Your task to perform on an android device: Search for "logitech g910" on ebay, select the first entry, and add it to the cart. Image 0: 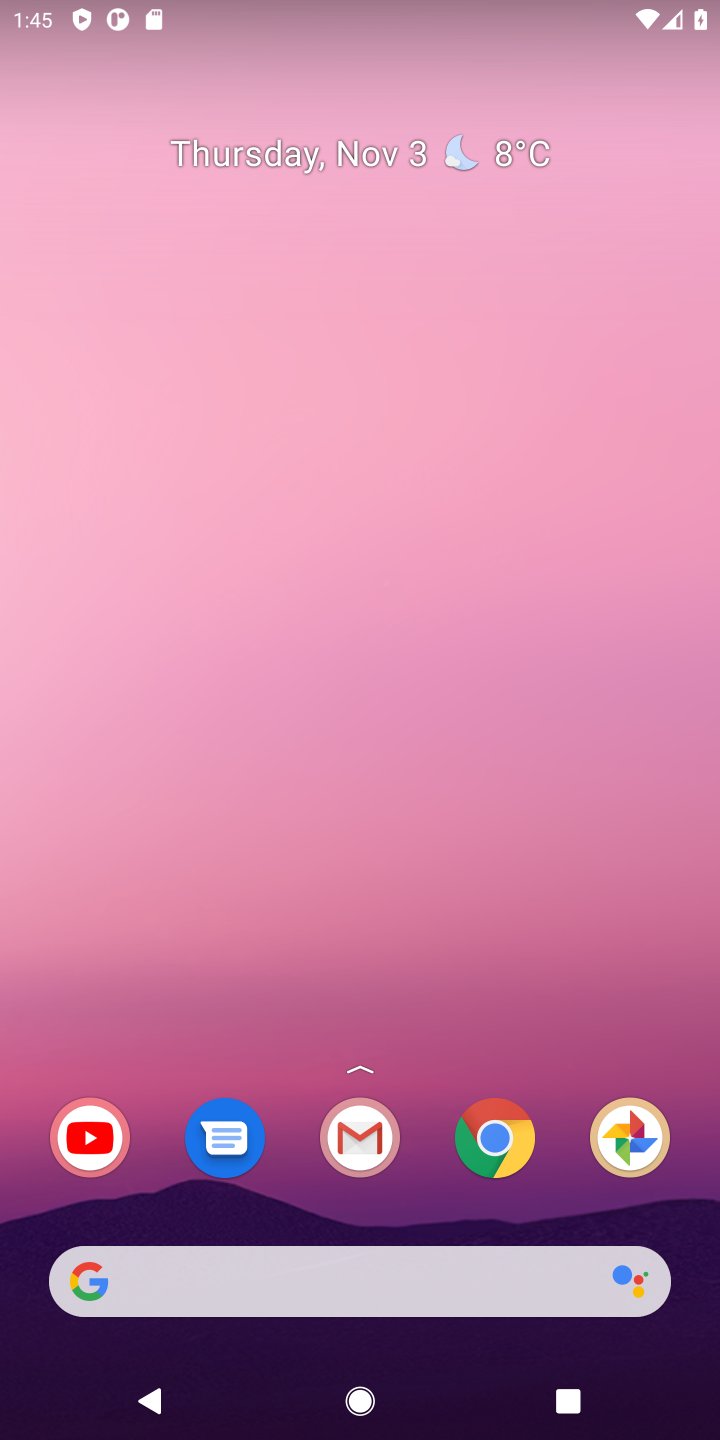
Step 0: click (495, 1130)
Your task to perform on an android device: Search for "logitech g910" on ebay, select the first entry, and add it to the cart. Image 1: 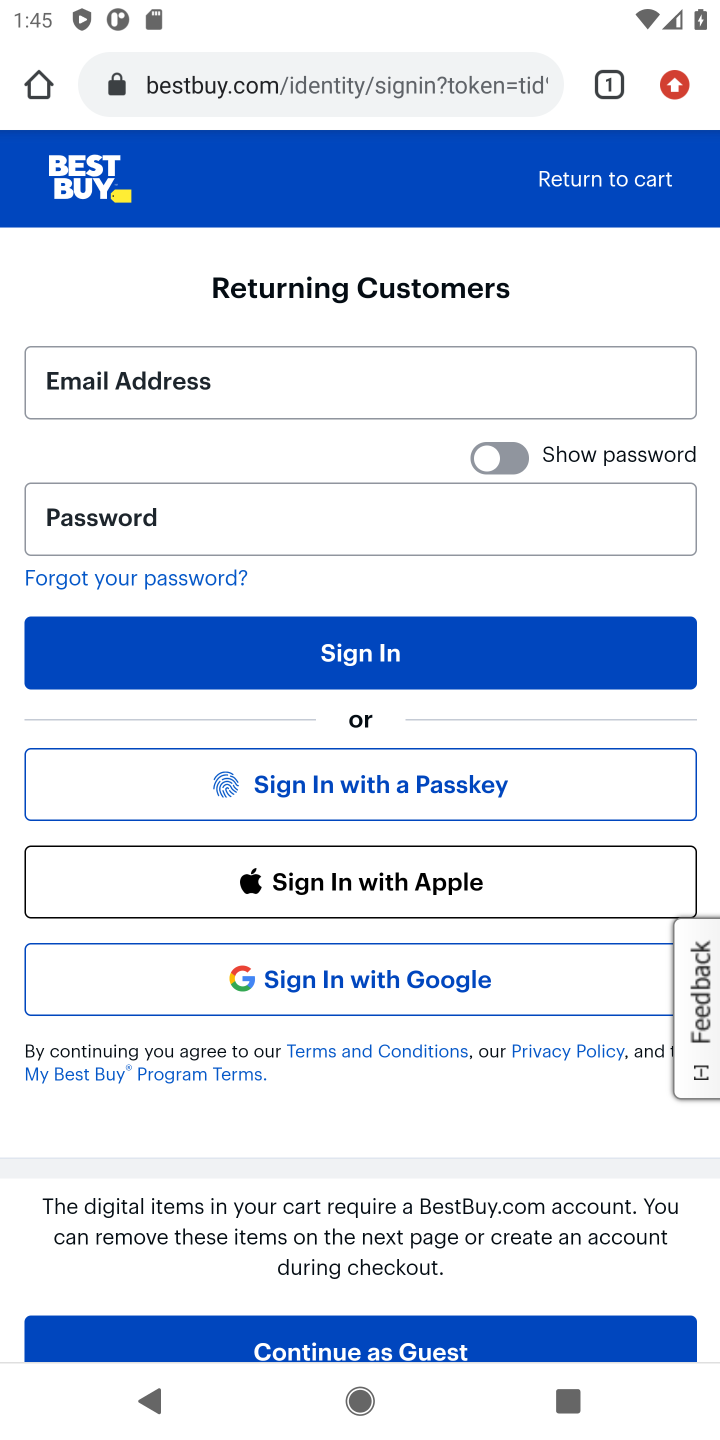
Step 1: click (376, 89)
Your task to perform on an android device: Search for "logitech g910" on ebay, select the first entry, and add it to the cart. Image 2: 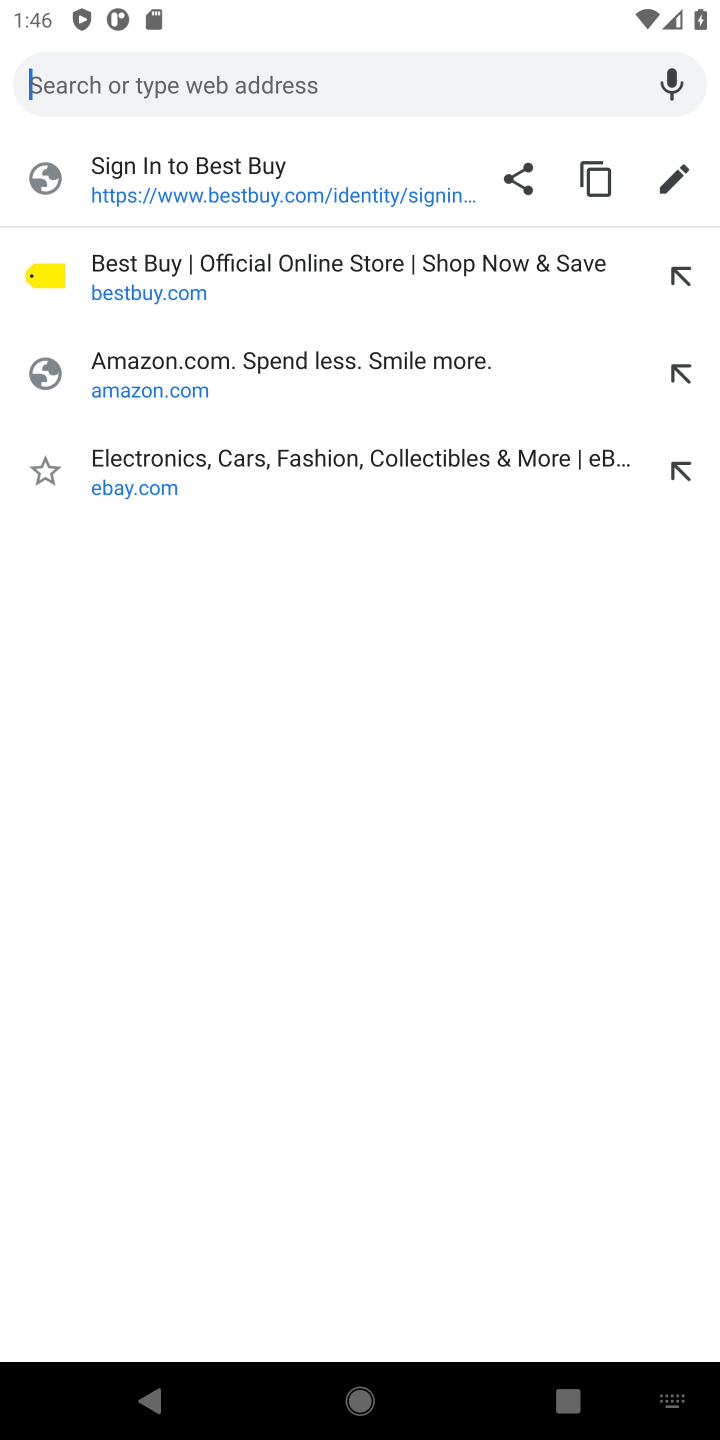
Step 2: type "ebay"
Your task to perform on an android device: Search for "logitech g910" on ebay, select the first entry, and add it to the cart. Image 3: 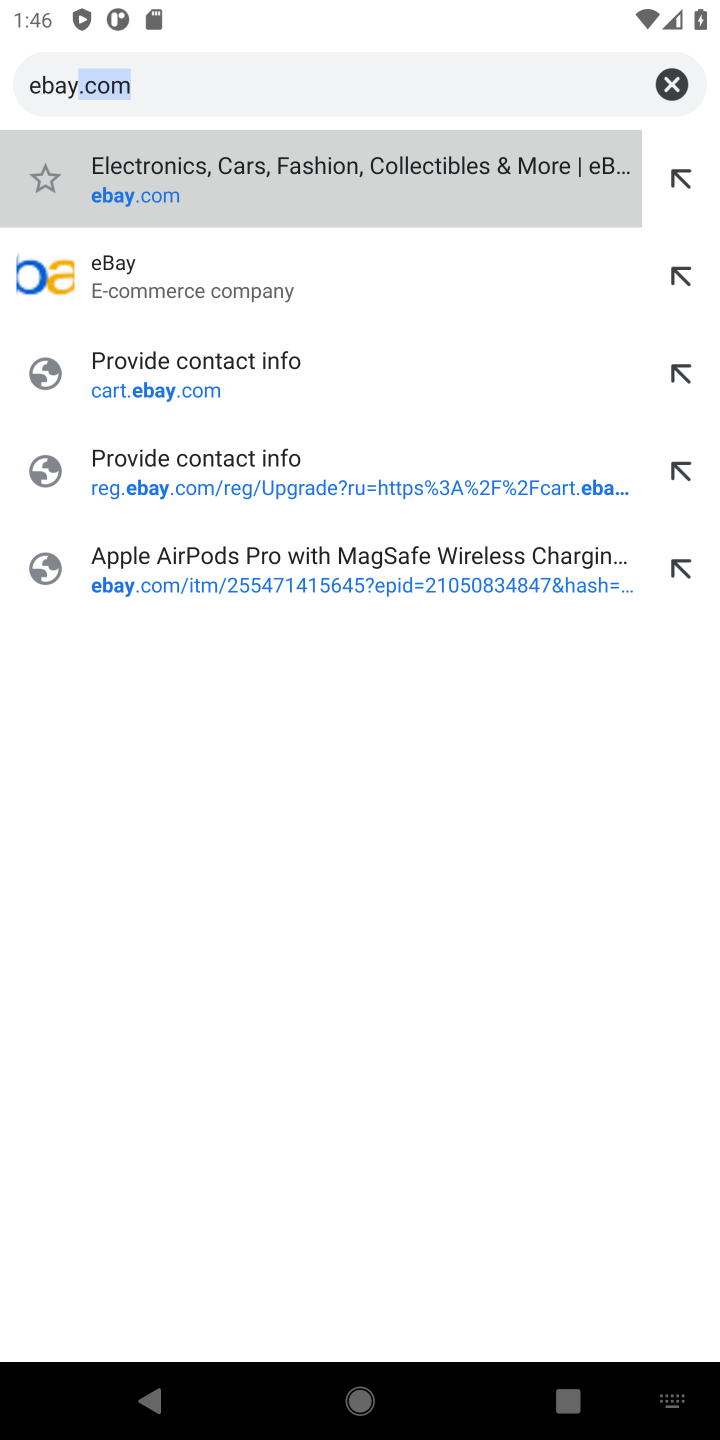
Step 3: click (42, 286)
Your task to perform on an android device: Search for "logitech g910" on ebay, select the first entry, and add it to the cart. Image 4: 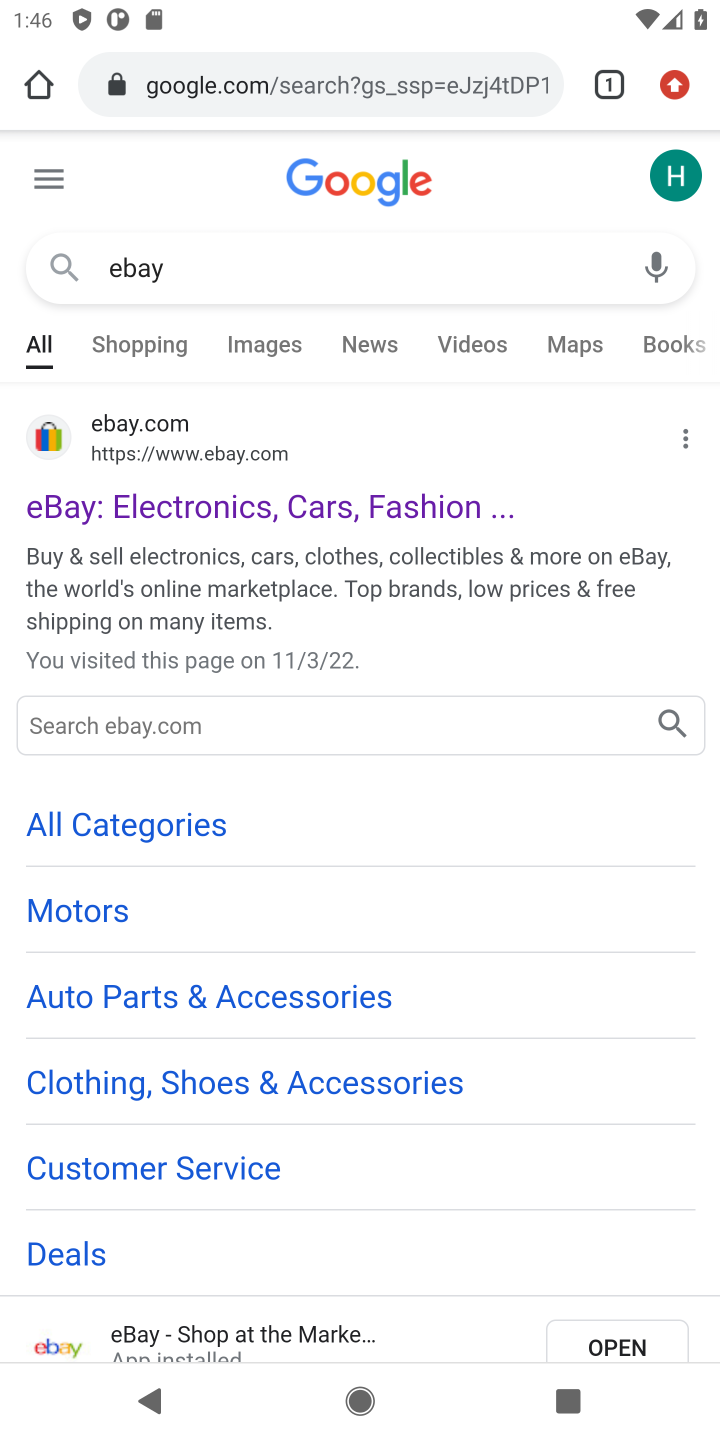
Step 4: click (71, 501)
Your task to perform on an android device: Search for "logitech g910" on ebay, select the first entry, and add it to the cart. Image 5: 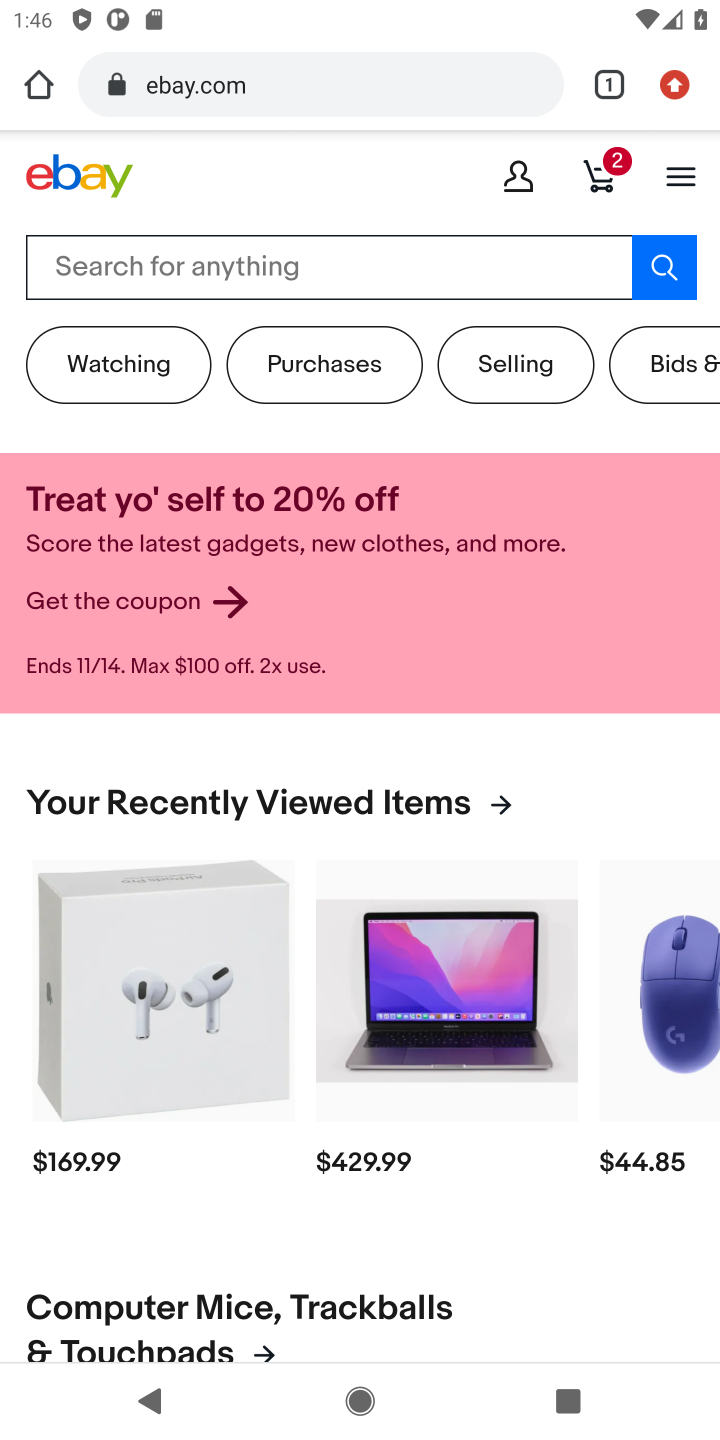
Step 5: click (259, 255)
Your task to perform on an android device: Search for "logitech g910" on ebay, select the first entry, and add it to the cart. Image 6: 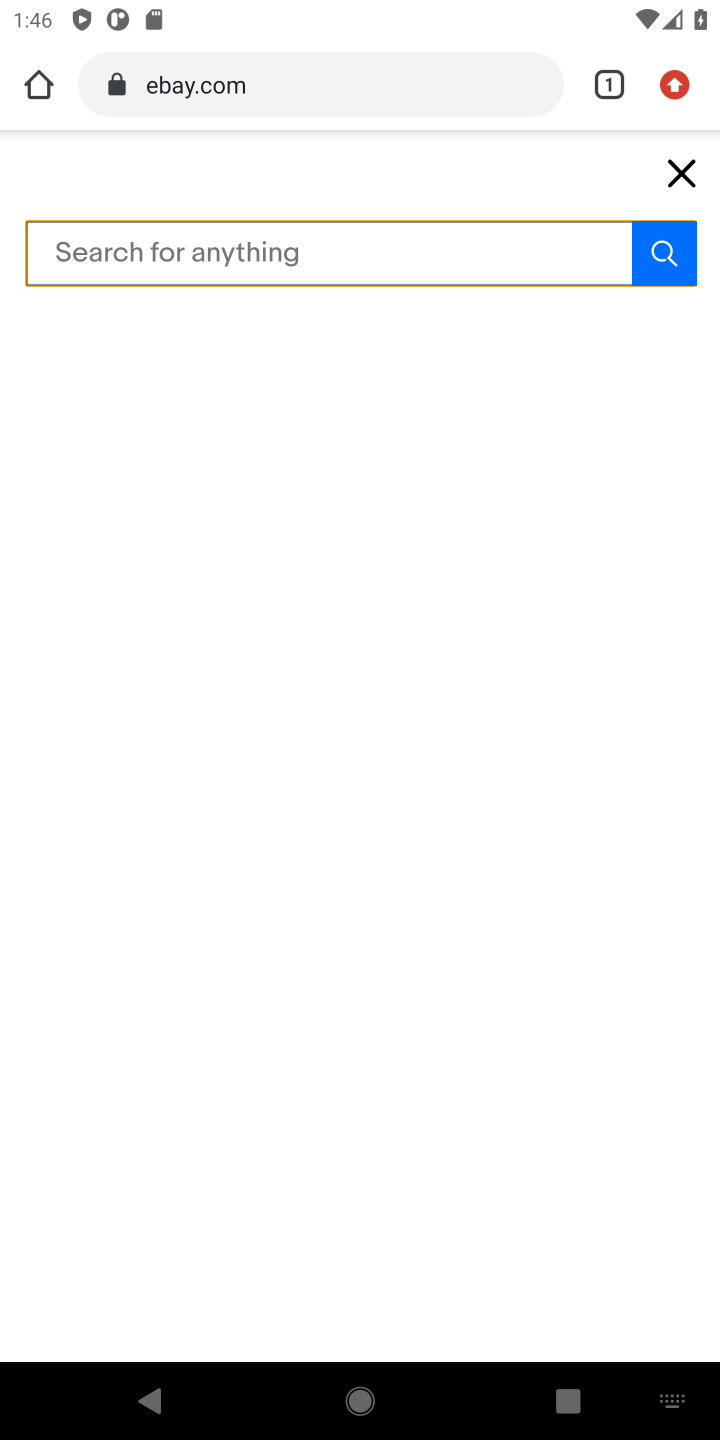
Step 6: type "logitech g910"
Your task to perform on an android device: Search for "logitech g910" on ebay, select the first entry, and add it to the cart. Image 7: 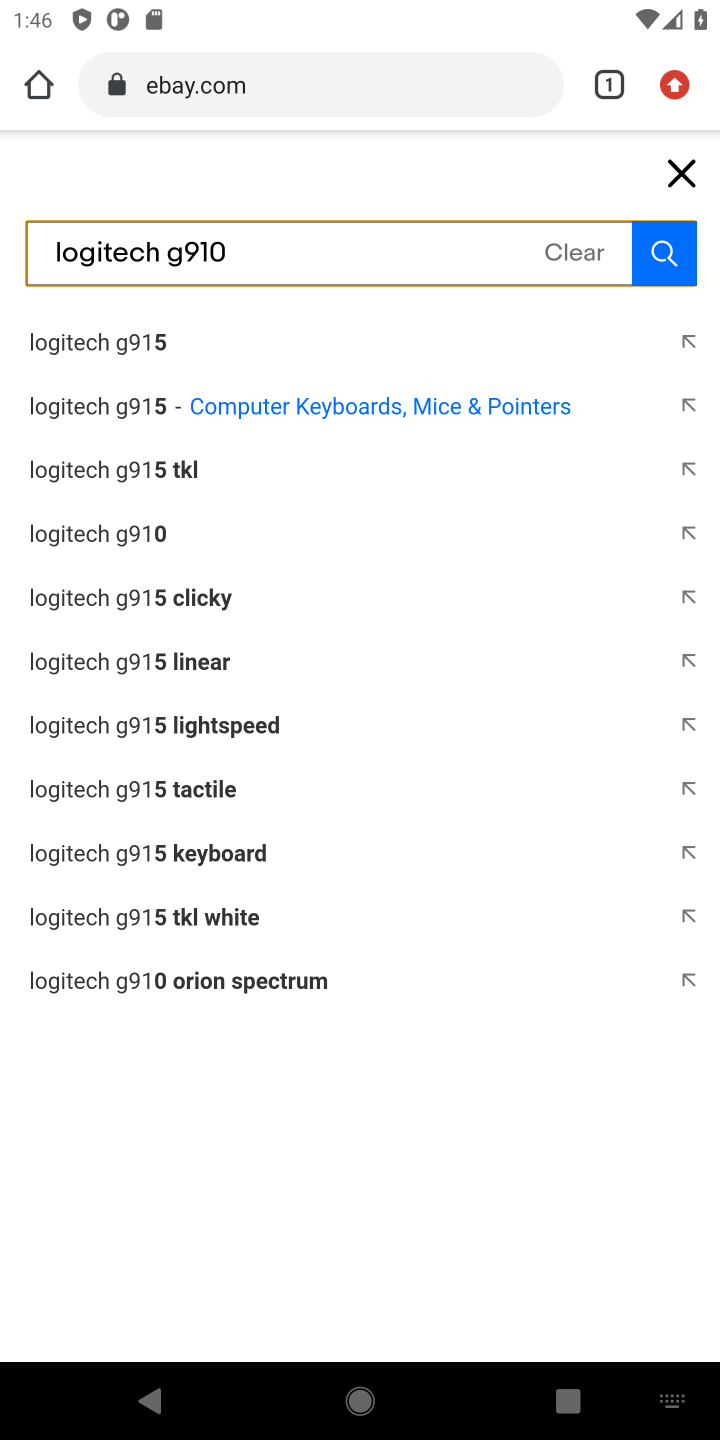
Step 7: click (675, 239)
Your task to perform on an android device: Search for "logitech g910" on ebay, select the first entry, and add it to the cart. Image 8: 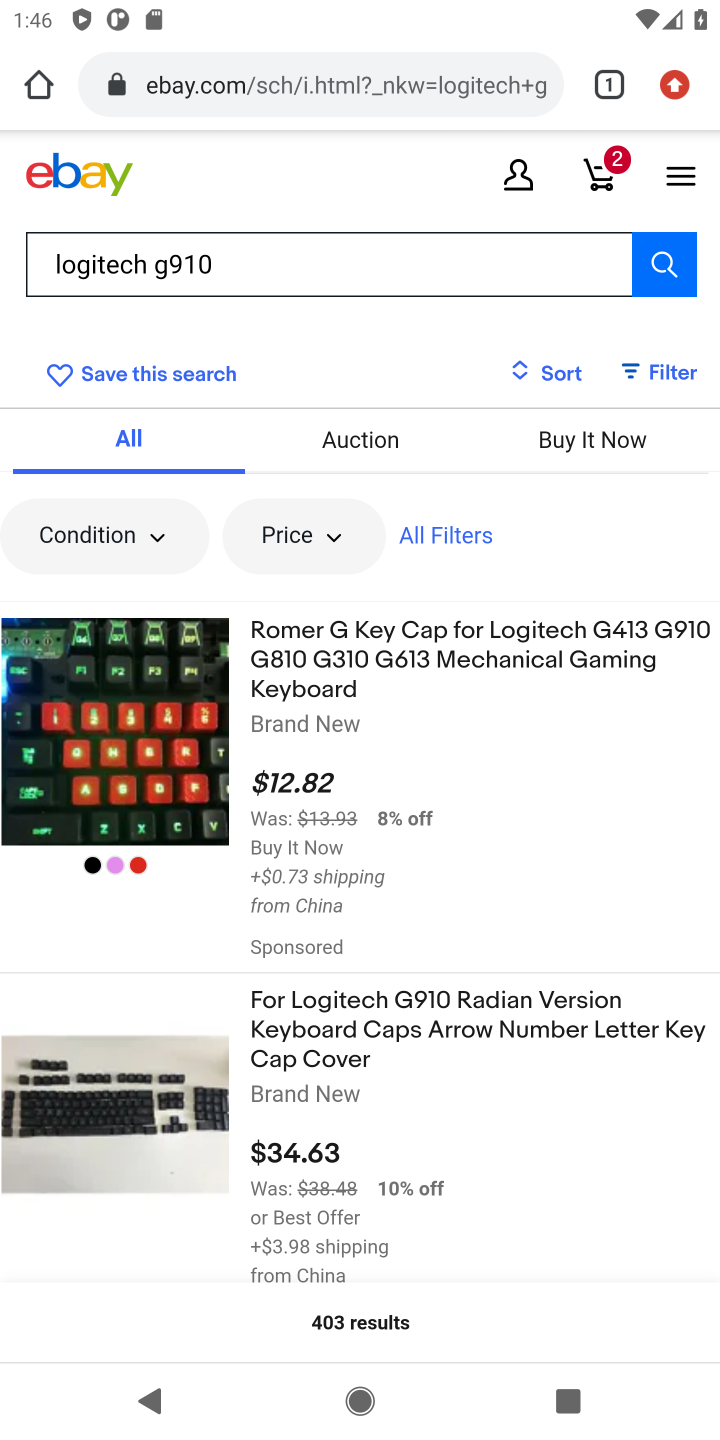
Step 8: click (436, 1047)
Your task to perform on an android device: Search for "logitech g910" on ebay, select the first entry, and add it to the cart. Image 9: 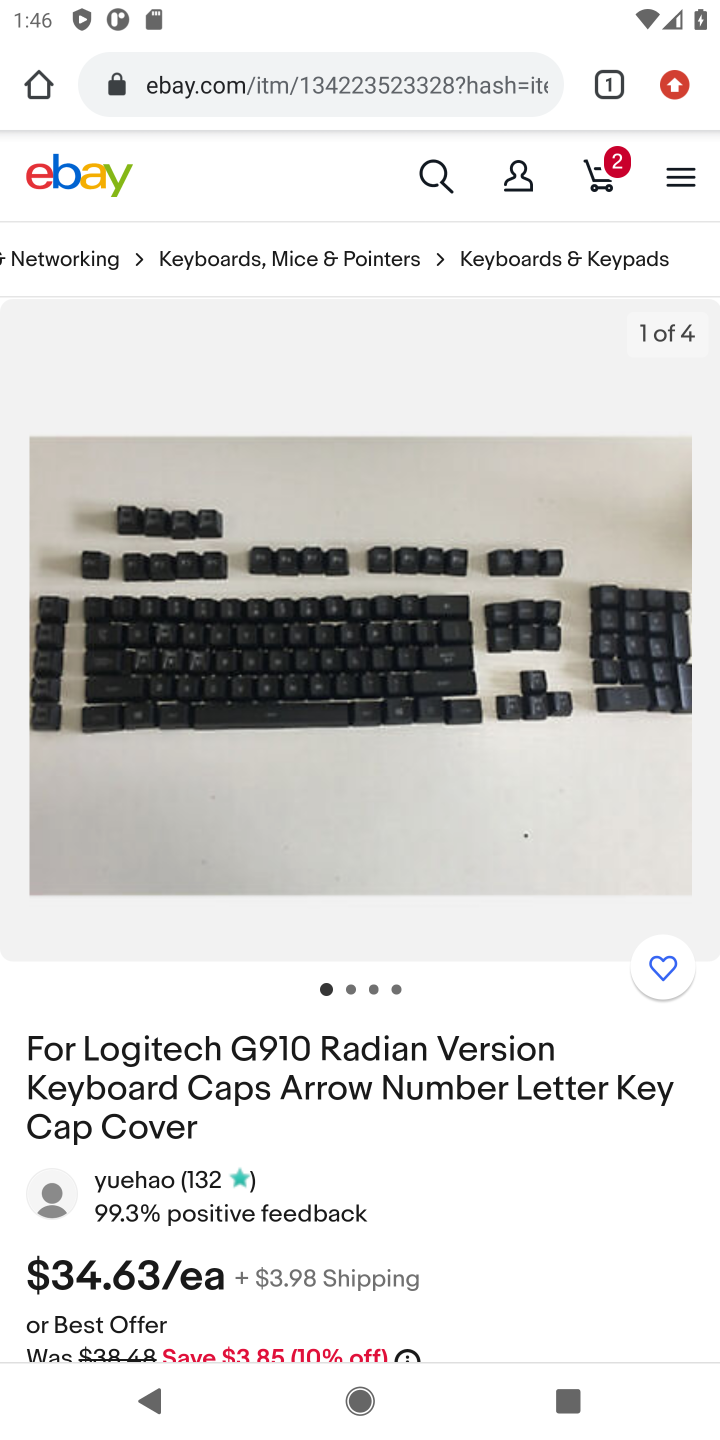
Step 9: task complete